Your task to perform on an android device: Open Youtube and go to "Your channel" Image 0: 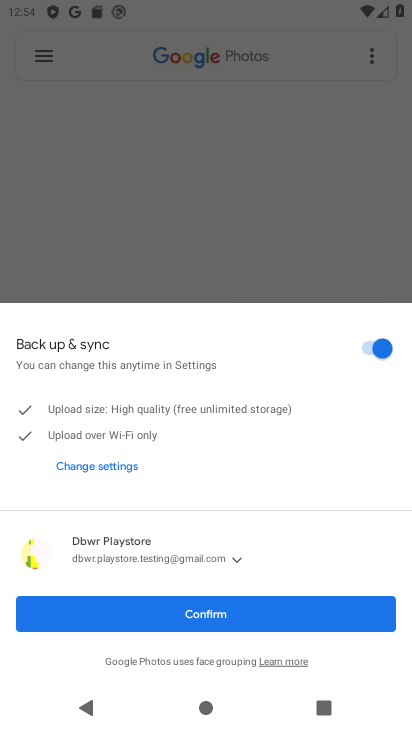
Step 0: press home button
Your task to perform on an android device: Open Youtube and go to "Your channel" Image 1: 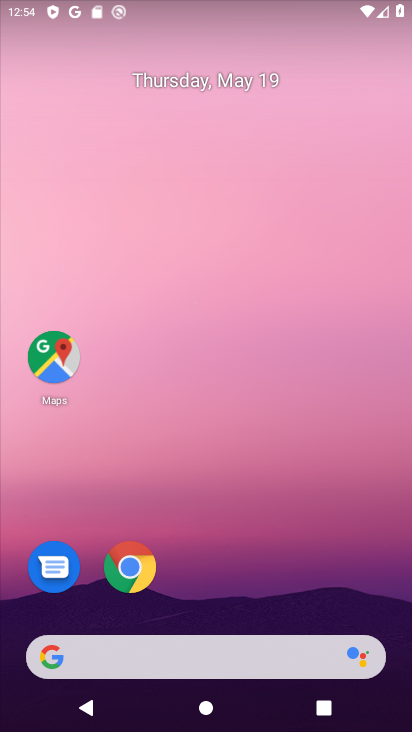
Step 1: drag from (315, 554) to (329, 42)
Your task to perform on an android device: Open Youtube and go to "Your channel" Image 2: 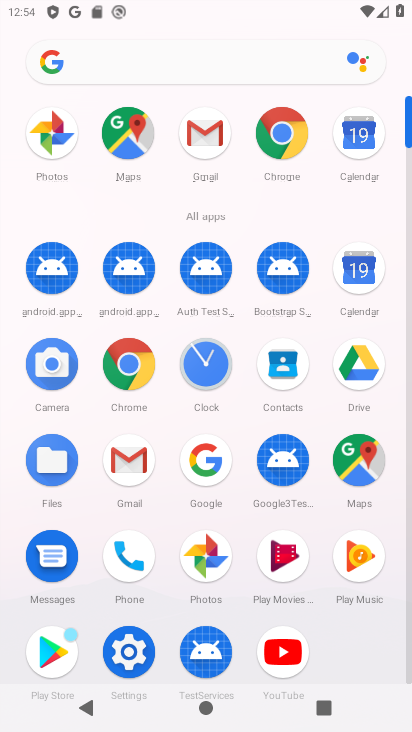
Step 2: click (290, 661)
Your task to perform on an android device: Open Youtube and go to "Your channel" Image 3: 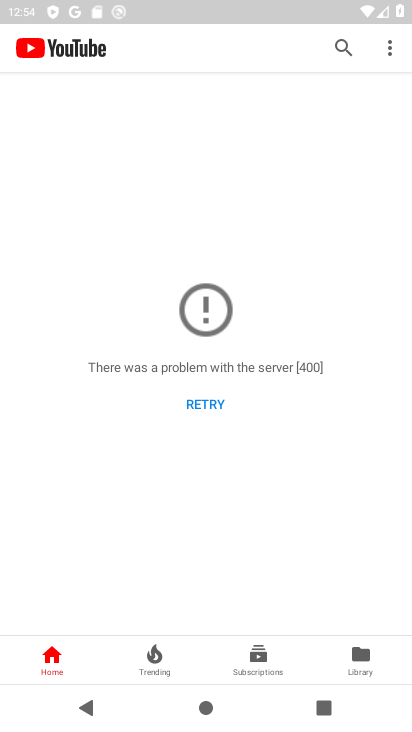
Step 3: click (394, 50)
Your task to perform on an android device: Open Youtube and go to "Your channel" Image 4: 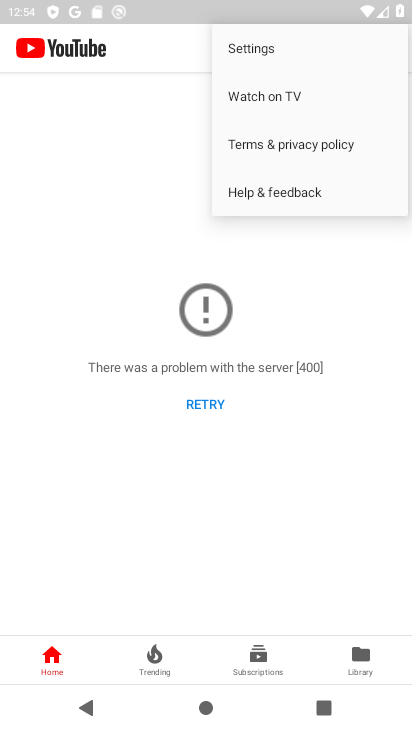
Step 4: click (227, 51)
Your task to perform on an android device: Open Youtube and go to "Your channel" Image 5: 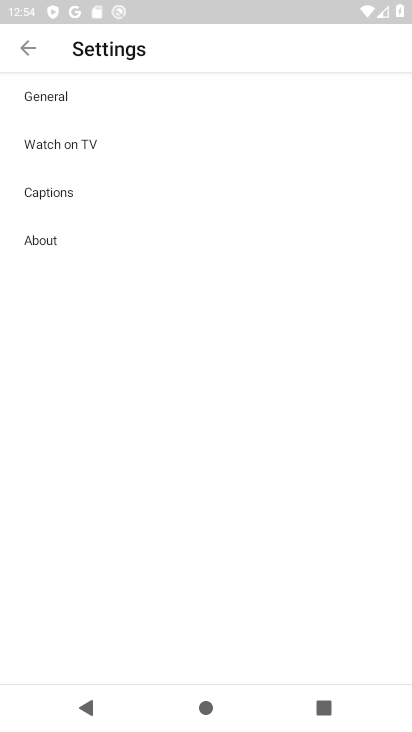
Step 5: task complete